Your task to perform on an android device: turn off data saver in the chrome app Image 0: 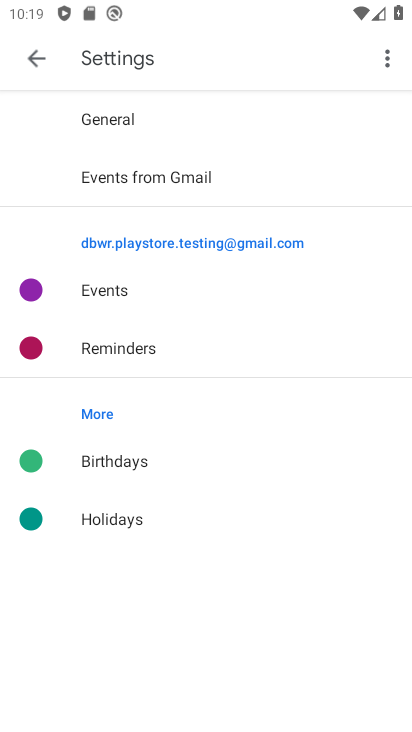
Step 0: press home button
Your task to perform on an android device: turn off data saver in the chrome app Image 1: 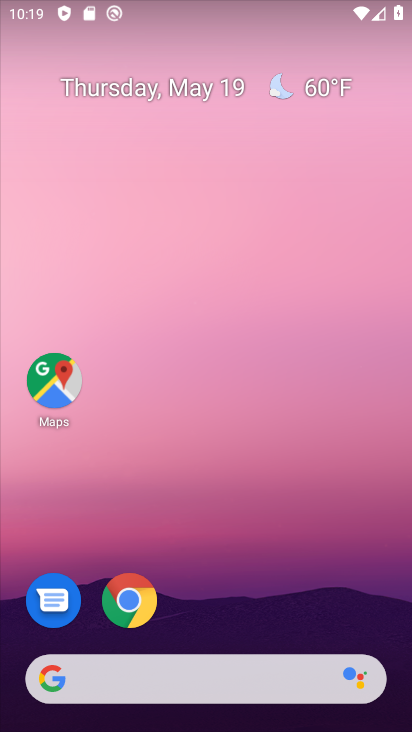
Step 1: drag from (385, 593) to (388, 243)
Your task to perform on an android device: turn off data saver in the chrome app Image 2: 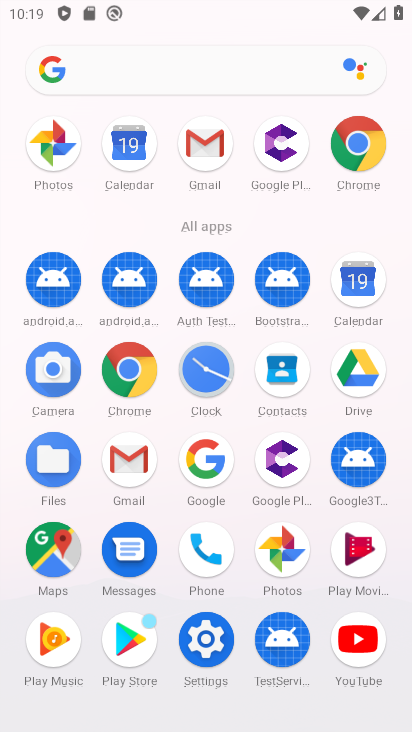
Step 2: click (142, 392)
Your task to perform on an android device: turn off data saver in the chrome app Image 3: 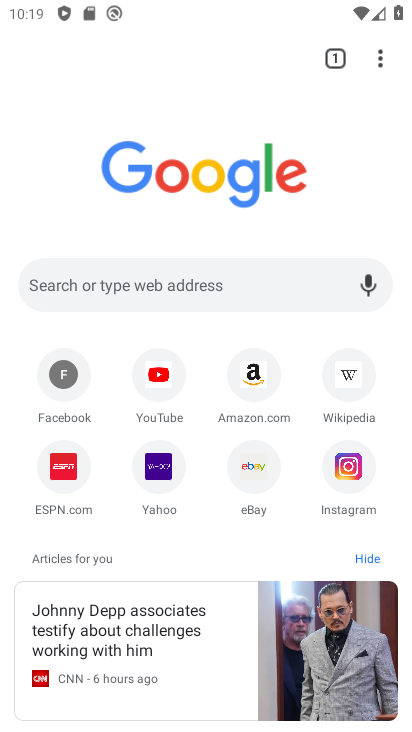
Step 3: click (380, 62)
Your task to perform on an android device: turn off data saver in the chrome app Image 4: 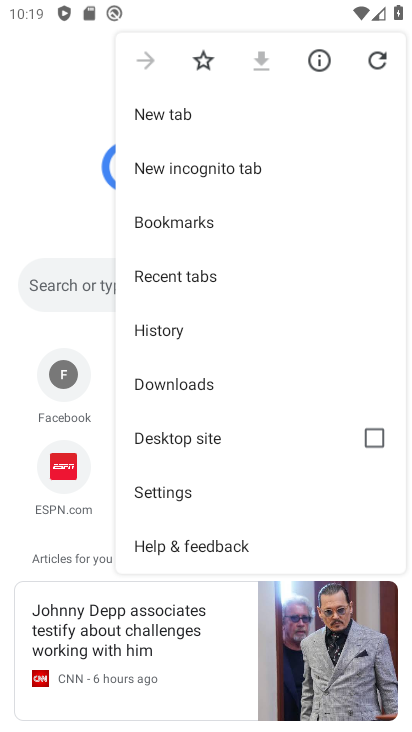
Step 4: drag from (264, 461) to (276, 339)
Your task to perform on an android device: turn off data saver in the chrome app Image 5: 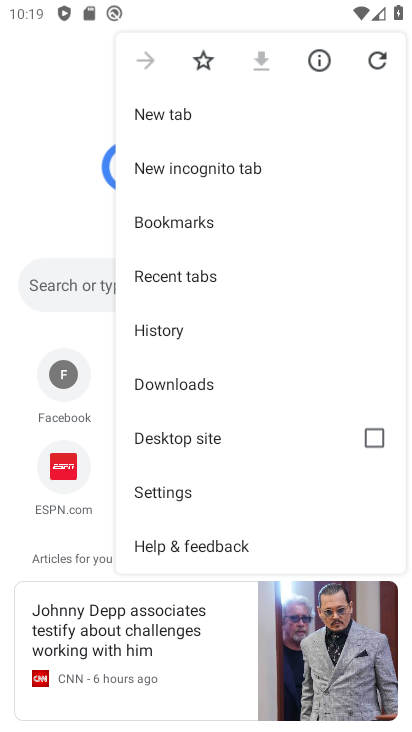
Step 5: click (203, 499)
Your task to perform on an android device: turn off data saver in the chrome app Image 6: 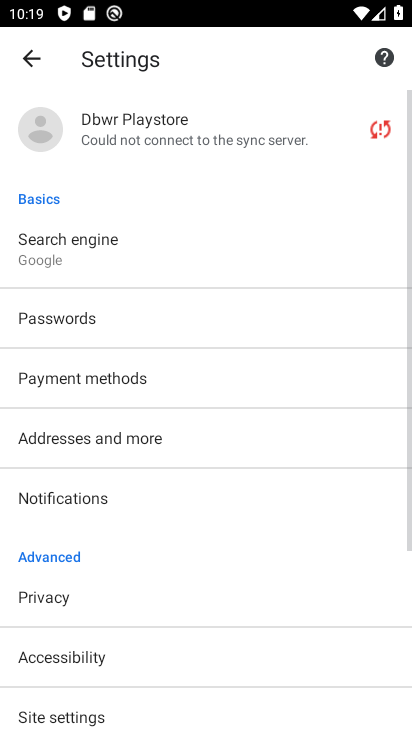
Step 6: drag from (247, 556) to (263, 464)
Your task to perform on an android device: turn off data saver in the chrome app Image 7: 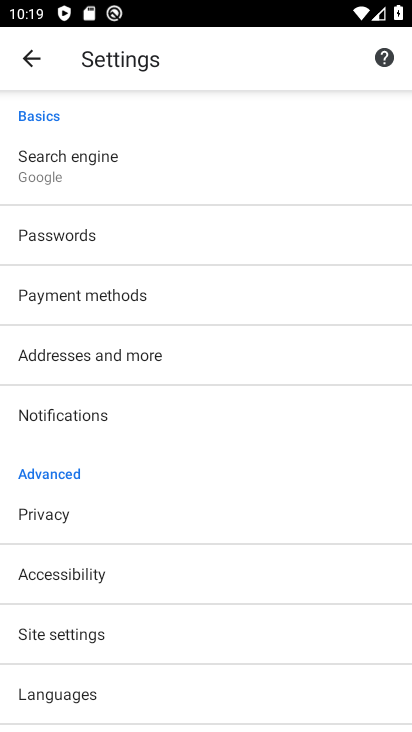
Step 7: drag from (290, 603) to (295, 521)
Your task to perform on an android device: turn off data saver in the chrome app Image 8: 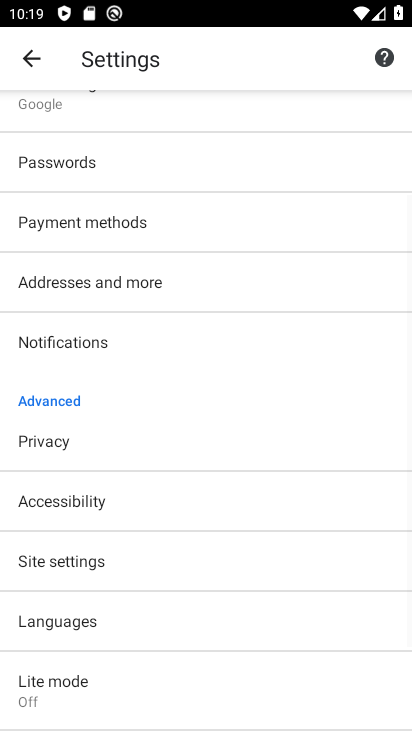
Step 8: drag from (291, 649) to (290, 568)
Your task to perform on an android device: turn off data saver in the chrome app Image 9: 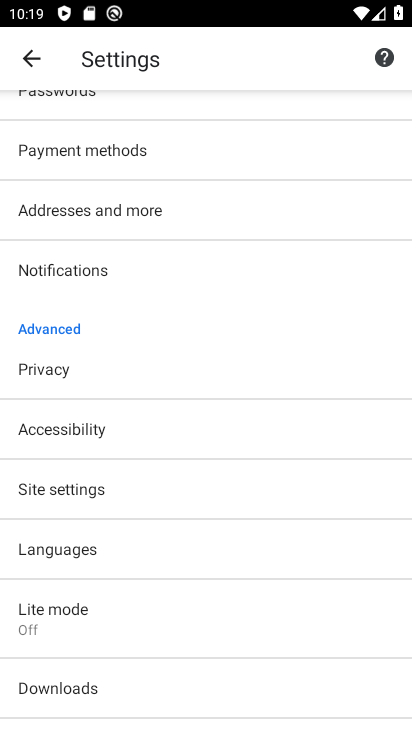
Step 9: drag from (290, 665) to (290, 587)
Your task to perform on an android device: turn off data saver in the chrome app Image 10: 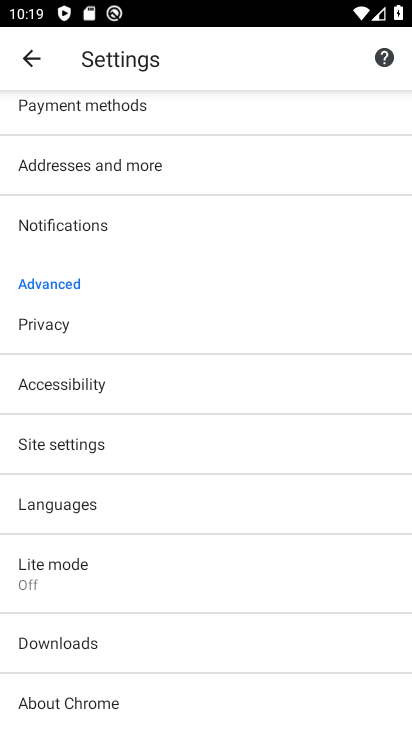
Step 10: drag from (288, 655) to (288, 579)
Your task to perform on an android device: turn off data saver in the chrome app Image 11: 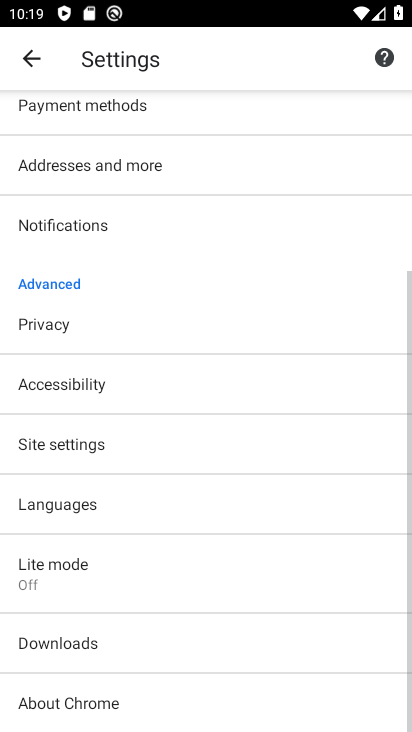
Step 11: drag from (287, 422) to (288, 492)
Your task to perform on an android device: turn off data saver in the chrome app Image 12: 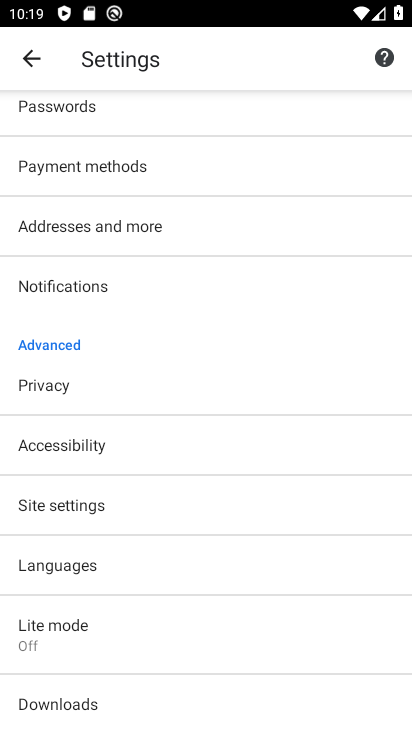
Step 12: drag from (287, 427) to (288, 484)
Your task to perform on an android device: turn off data saver in the chrome app Image 13: 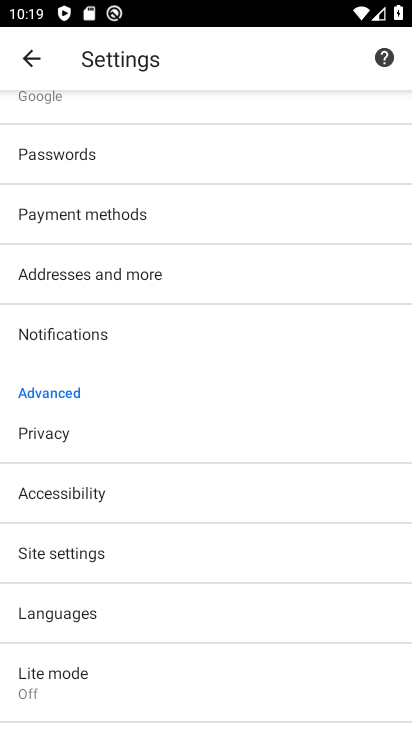
Step 13: drag from (283, 406) to (283, 479)
Your task to perform on an android device: turn off data saver in the chrome app Image 14: 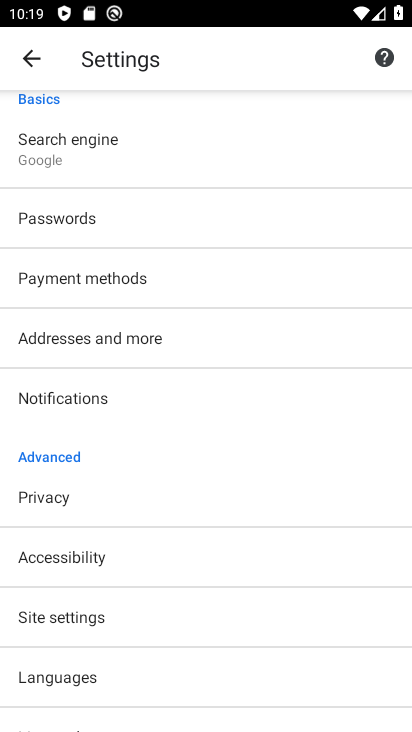
Step 14: drag from (280, 415) to (280, 489)
Your task to perform on an android device: turn off data saver in the chrome app Image 15: 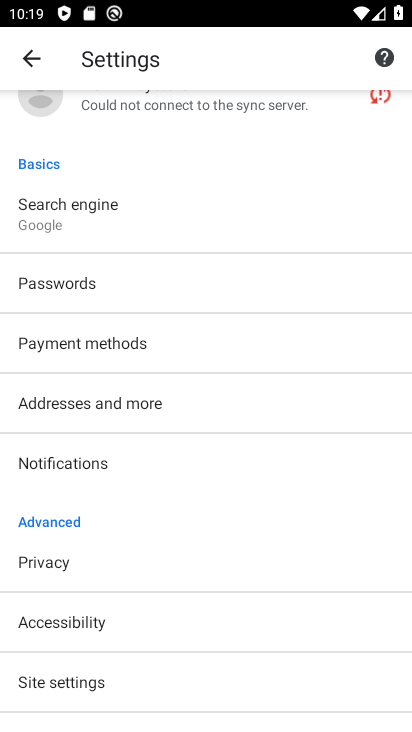
Step 15: drag from (282, 352) to (286, 426)
Your task to perform on an android device: turn off data saver in the chrome app Image 16: 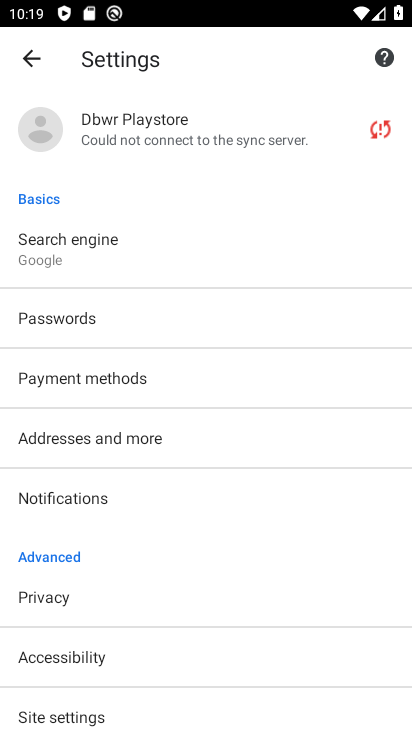
Step 16: drag from (288, 339) to (292, 421)
Your task to perform on an android device: turn off data saver in the chrome app Image 17: 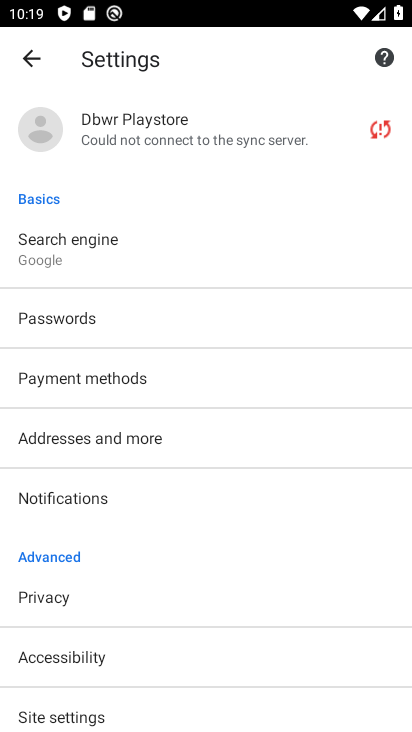
Step 17: drag from (291, 534) to (294, 470)
Your task to perform on an android device: turn off data saver in the chrome app Image 18: 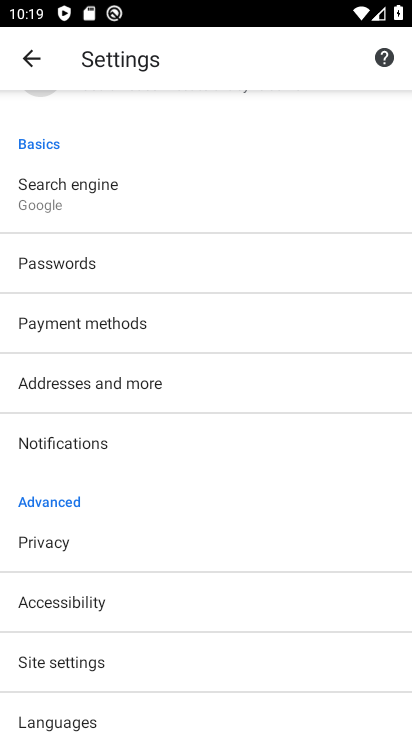
Step 18: drag from (285, 524) to (284, 468)
Your task to perform on an android device: turn off data saver in the chrome app Image 19: 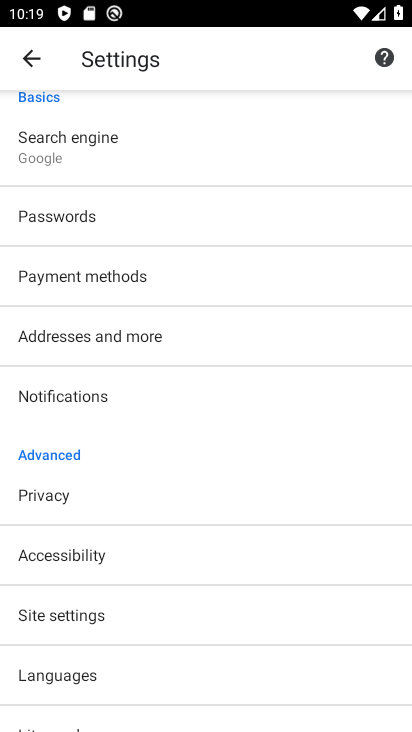
Step 19: drag from (279, 541) to (279, 481)
Your task to perform on an android device: turn off data saver in the chrome app Image 20: 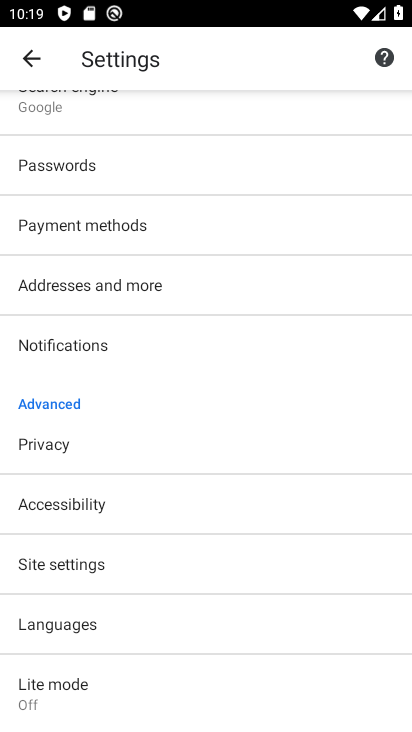
Step 20: drag from (277, 548) to (279, 483)
Your task to perform on an android device: turn off data saver in the chrome app Image 21: 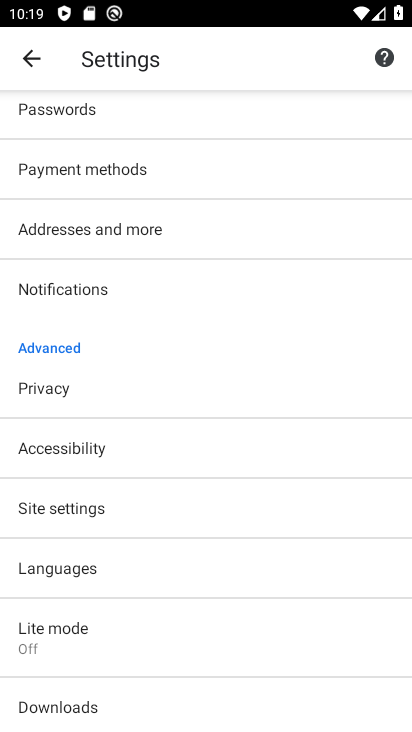
Step 21: drag from (263, 565) to (267, 462)
Your task to perform on an android device: turn off data saver in the chrome app Image 22: 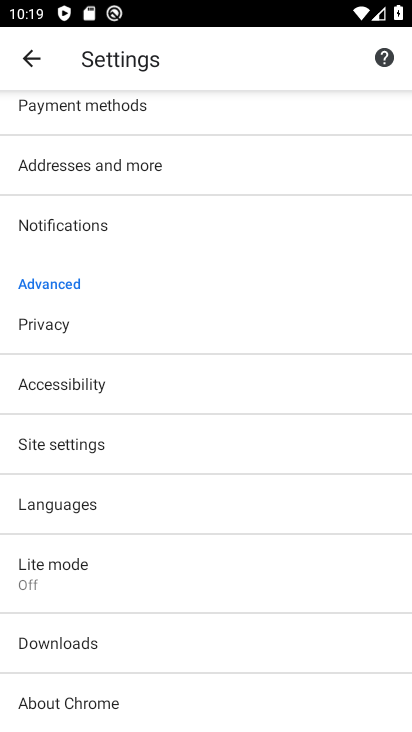
Step 22: click (246, 555)
Your task to perform on an android device: turn off data saver in the chrome app Image 23: 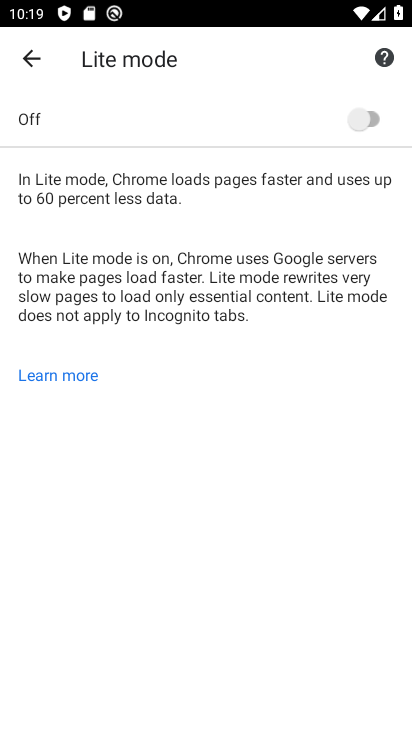
Step 23: task complete